Your task to perform on an android device: turn pop-ups off in chrome Image 0: 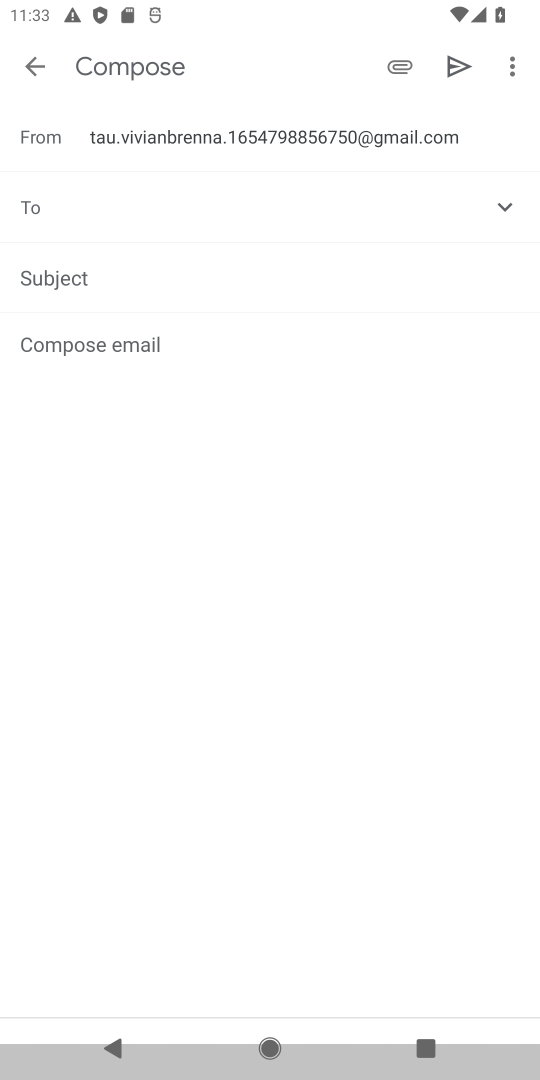
Step 0: press home button
Your task to perform on an android device: turn pop-ups off in chrome Image 1: 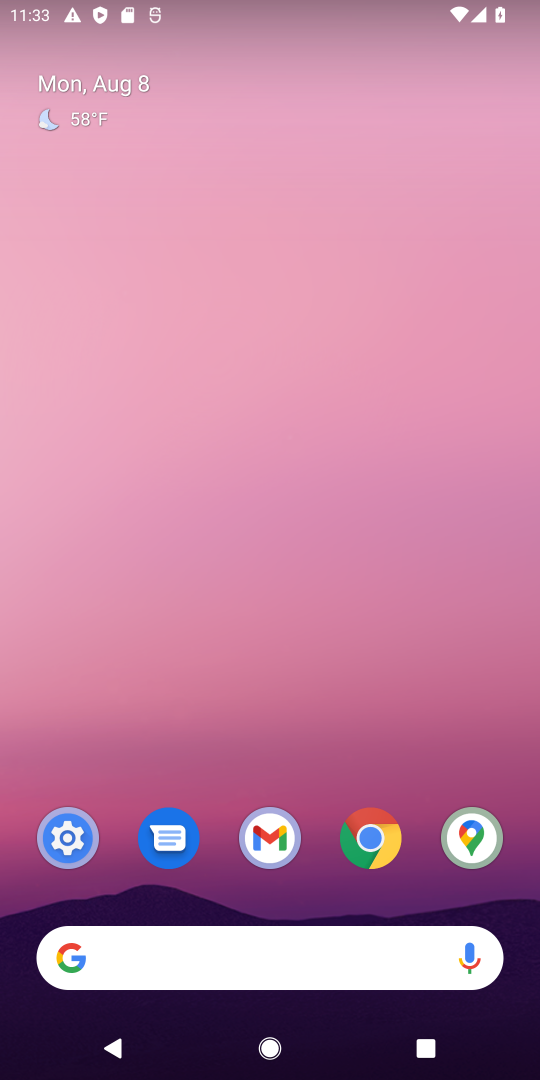
Step 1: click (352, 833)
Your task to perform on an android device: turn pop-ups off in chrome Image 2: 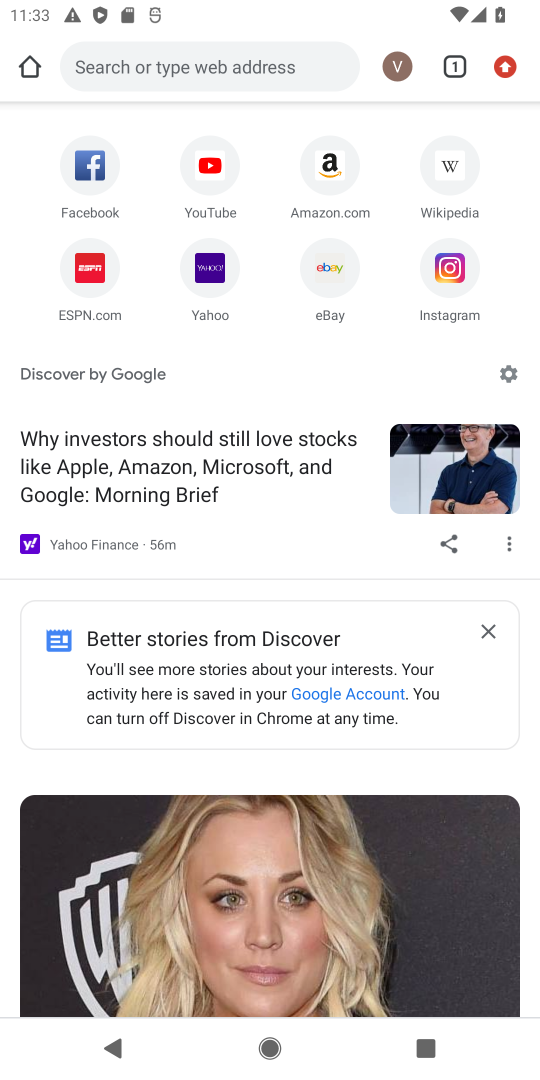
Step 2: drag from (495, 67) to (309, 667)
Your task to perform on an android device: turn pop-ups off in chrome Image 3: 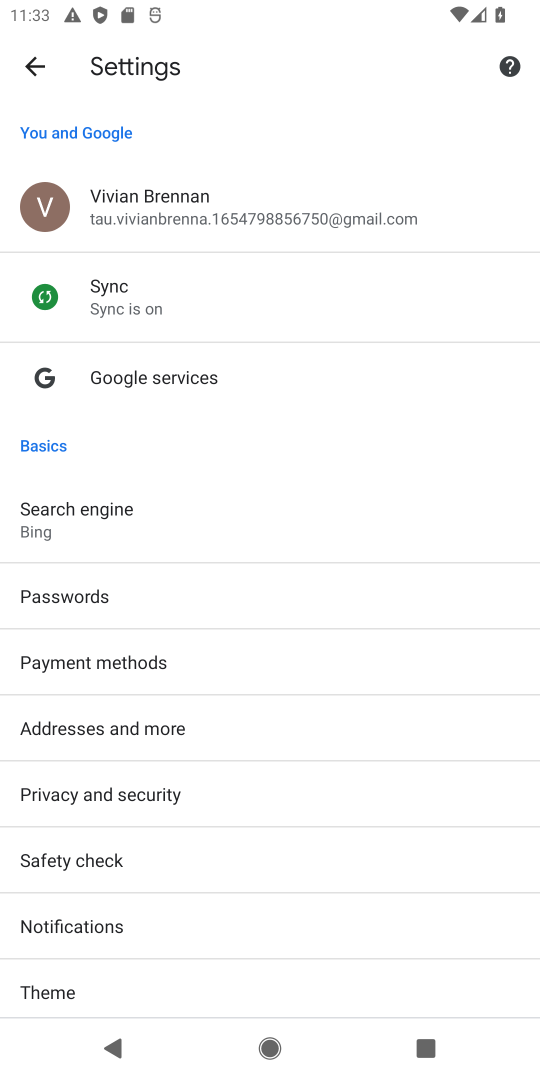
Step 3: drag from (323, 966) to (286, 363)
Your task to perform on an android device: turn pop-ups off in chrome Image 4: 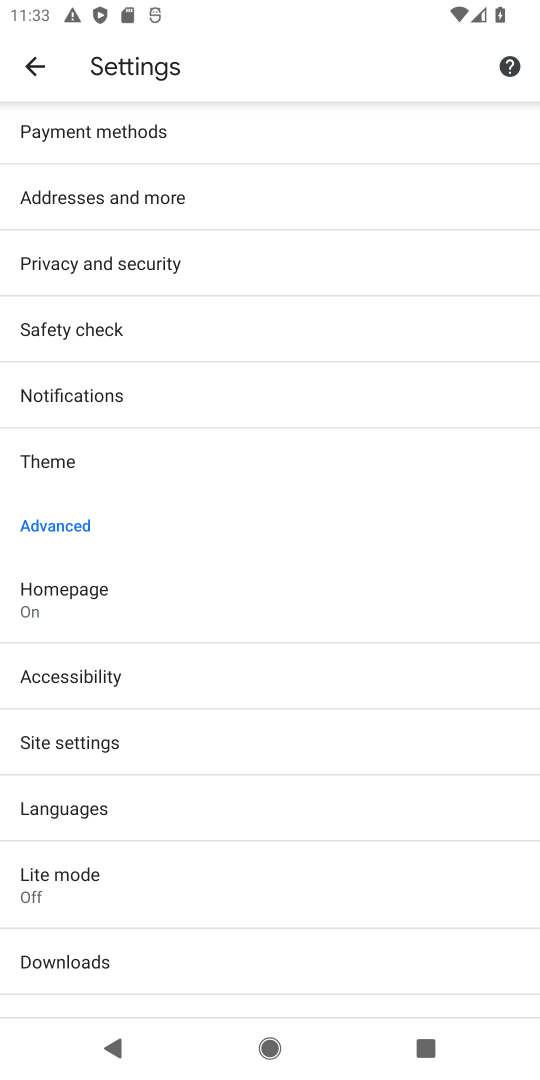
Step 4: click (41, 743)
Your task to perform on an android device: turn pop-ups off in chrome Image 5: 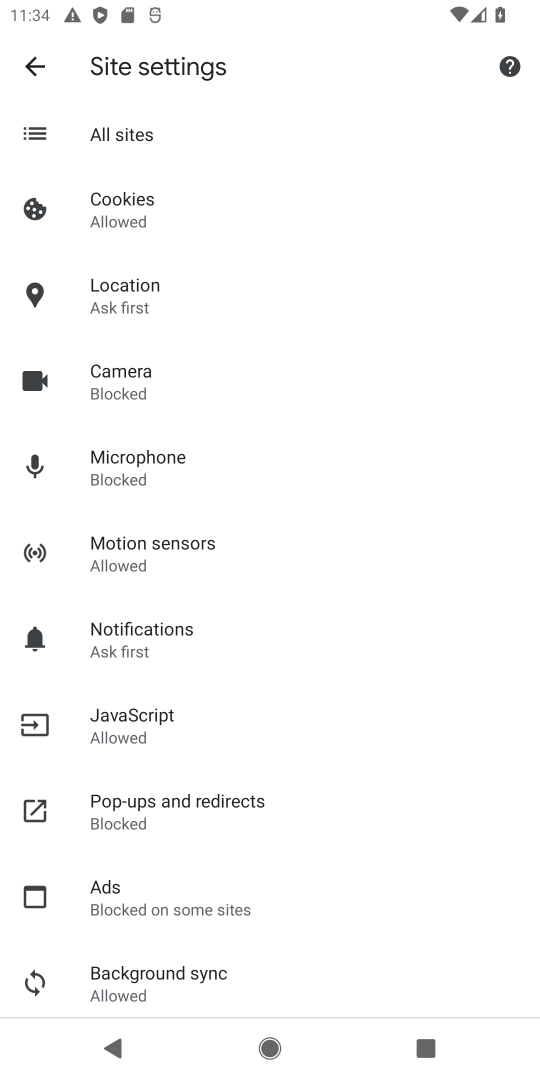
Step 5: click (144, 825)
Your task to perform on an android device: turn pop-ups off in chrome Image 6: 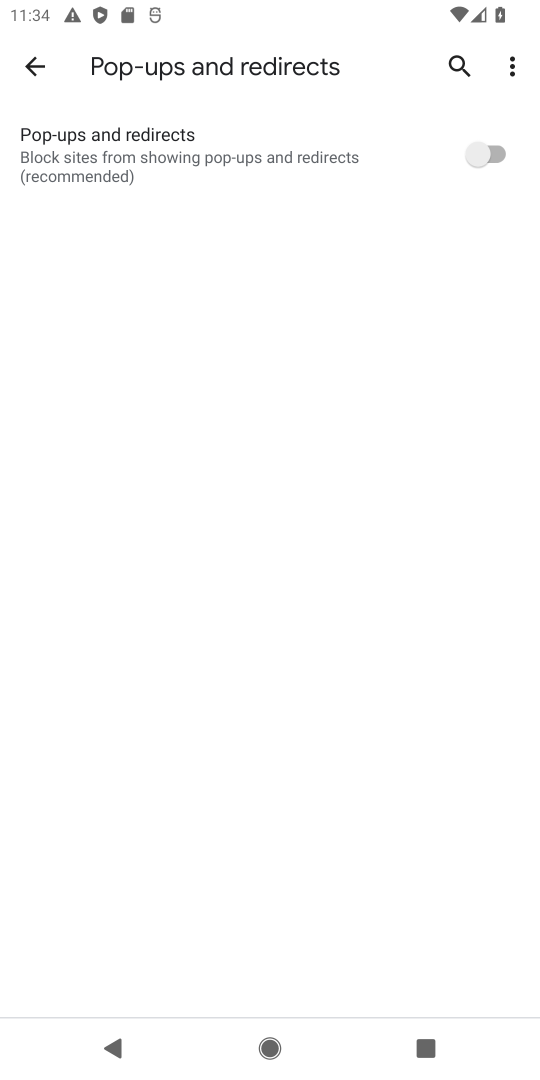
Step 6: task complete